Your task to perform on an android device: toggle translation in the chrome app Image 0: 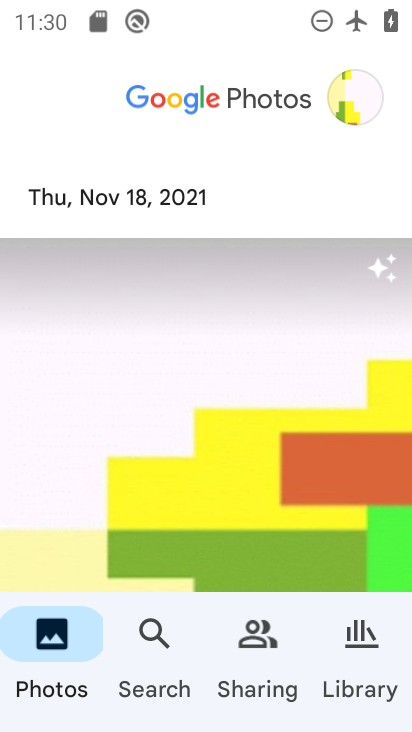
Step 0: press home button
Your task to perform on an android device: toggle translation in the chrome app Image 1: 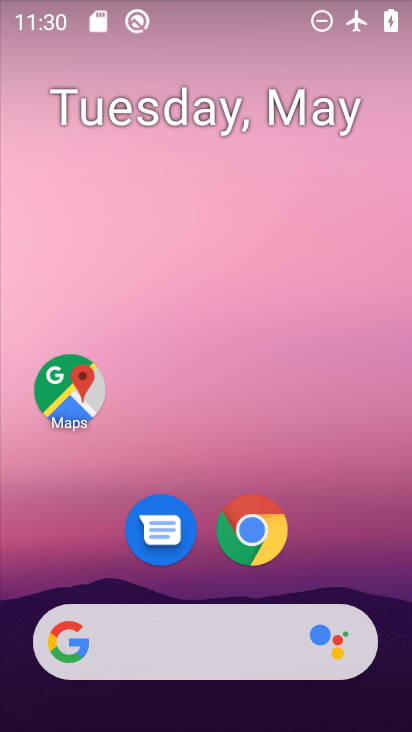
Step 1: click (243, 533)
Your task to perform on an android device: toggle translation in the chrome app Image 2: 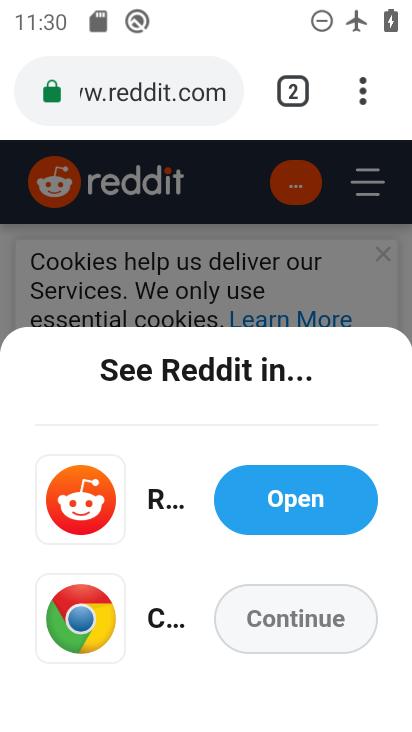
Step 2: click (374, 92)
Your task to perform on an android device: toggle translation in the chrome app Image 3: 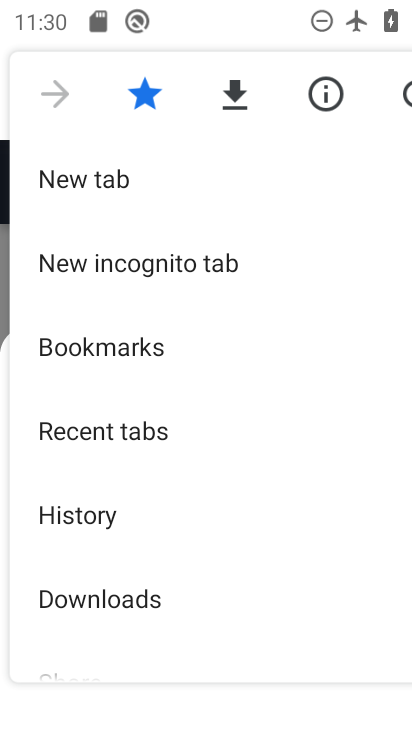
Step 3: drag from (203, 564) to (200, 134)
Your task to perform on an android device: toggle translation in the chrome app Image 4: 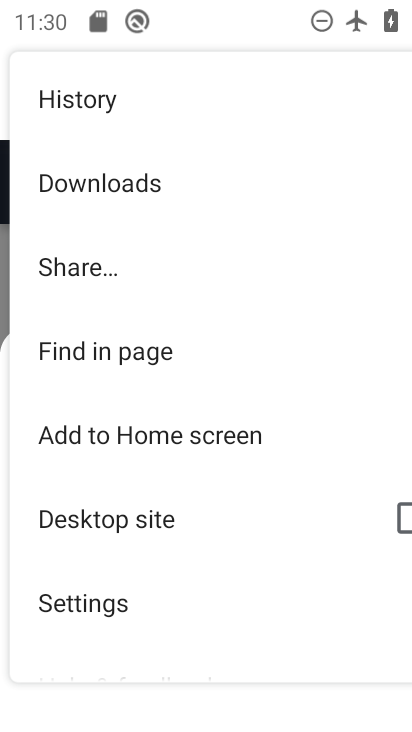
Step 4: drag from (177, 588) to (235, 236)
Your task to perform on an android device: toggle translation in the chrome app Image 5: 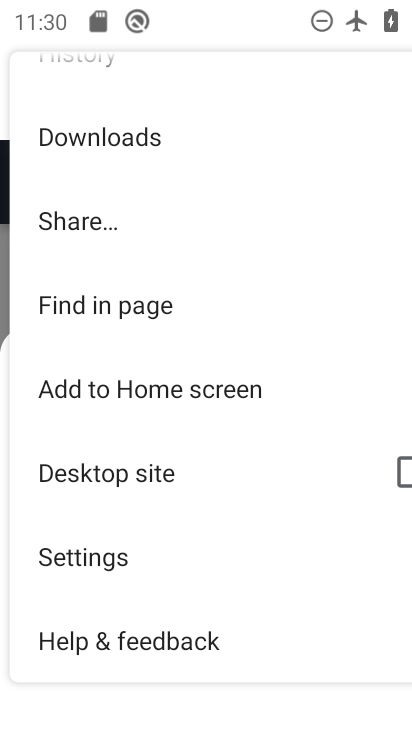
Step 5: click (68, 570)
Your task to perform on an android device: toggle translation in the chrome app Image 6: 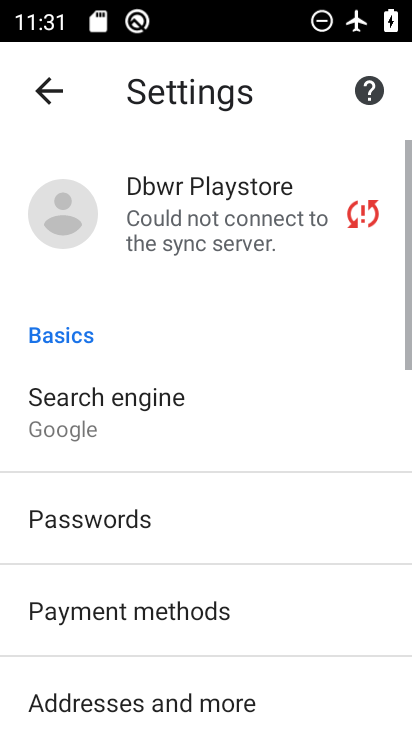
Step 6: drag from (220, 592) to (349, 175)
Your task to perform on an android device: toggle translation in the chrome app Image 7: 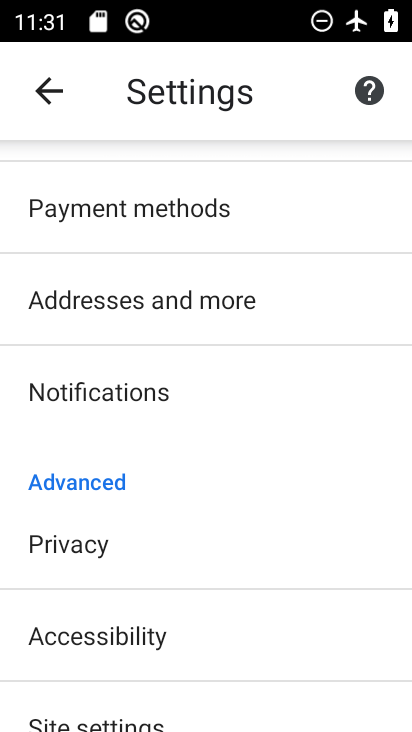
Step 7: drag from (266, 605) to (338, 247)
Your task to perform on an android device: toggle translation in the chrome app Image 8: 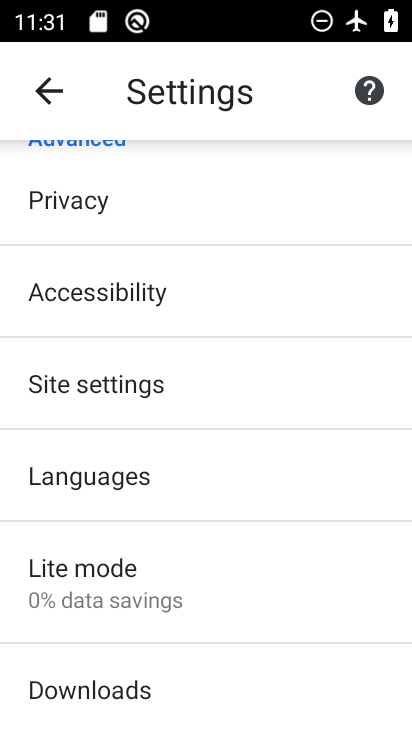
Step 8: drag from (240, 571) to (286, 312)
Your task to perform on an android device: toggle translation in the chrome app Image 9: 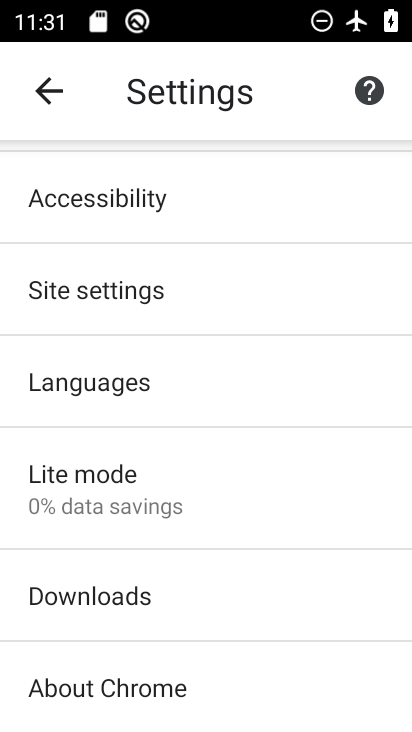
Step 9: click (130, 384)
Your task to perform on an android device: toggle translation in the chrome app Image 10: 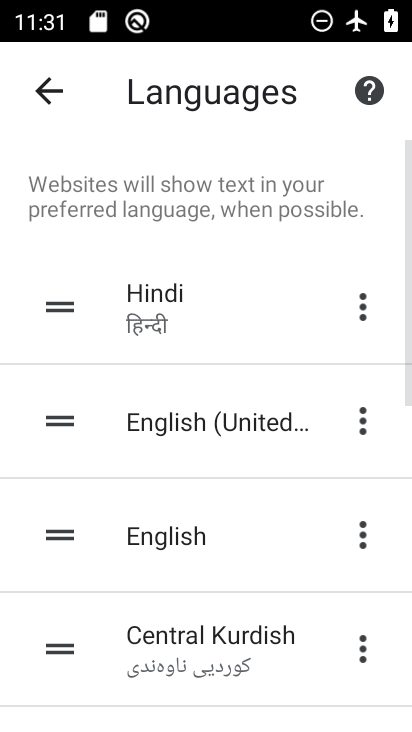
Step 10: drag from (211, 603) to (261, 160)
Your task to perform on an android device: toggle translation in the chrome app Image 11: 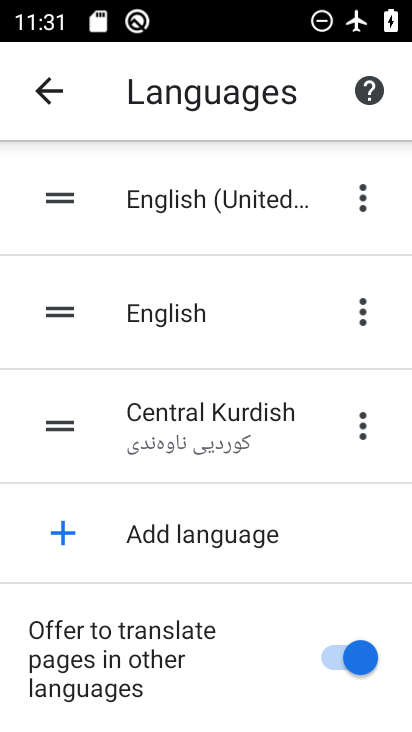
Step 11: click (359, 665)
Your task to perform on an android device: toggle translation in the chrome app Image 12: 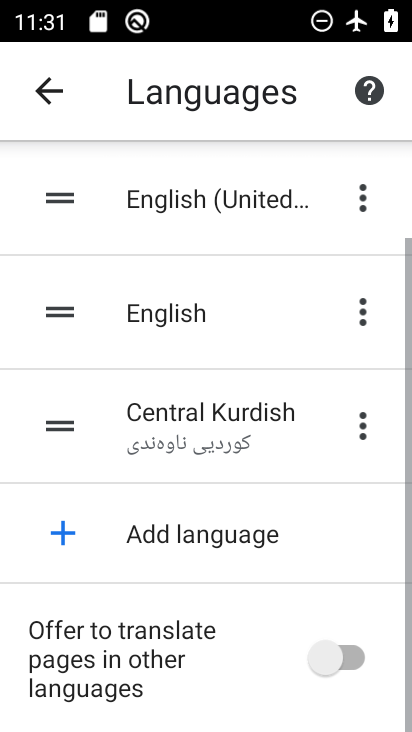
Step 12: task complete